Your task to perform on an android device: turn on airplane mode Image 0: 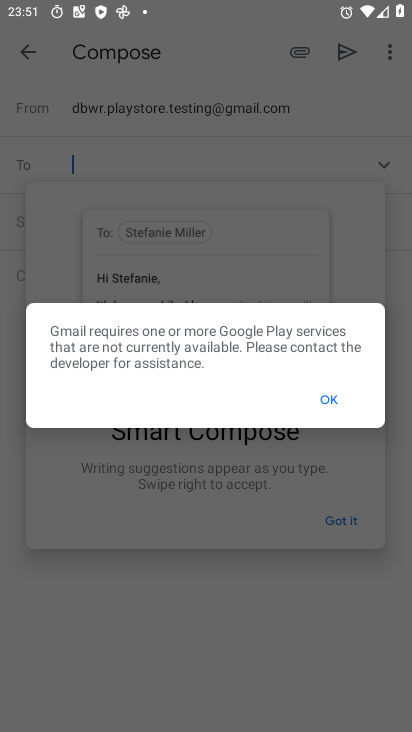
Step 0: press home button
Your task to perform on an android device: turn on airplane mode Image 1: 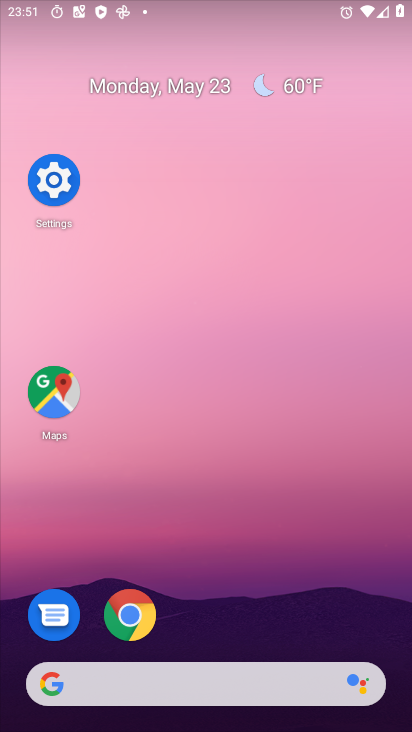
Step 1: drag from (246, 522) to (301, 30)
Your task to perform on an android device: turn on airplane mode Image 2: 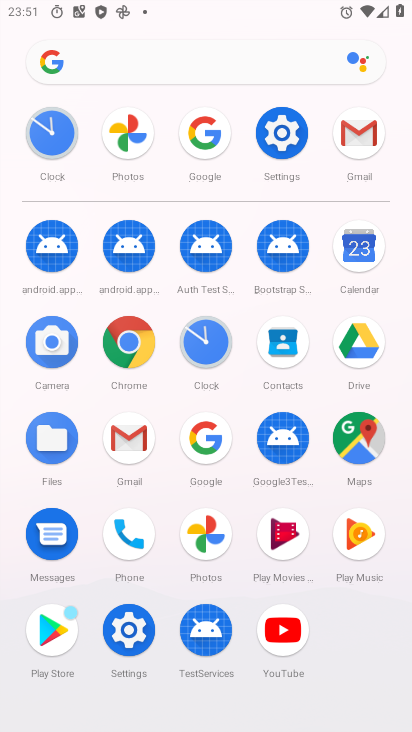
Step 2: click (284, 120)
Your task to perform on an android device: turn on airplane mode Image 3: 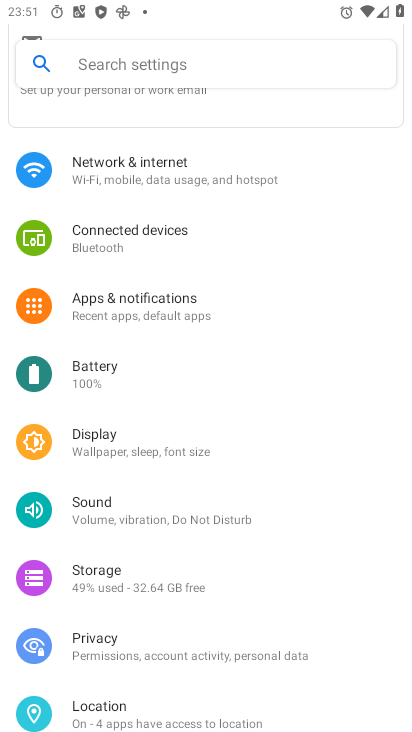
Step 3: click (164, 172)
Your task to perform on an android device: turn on airplane mode Image 4: 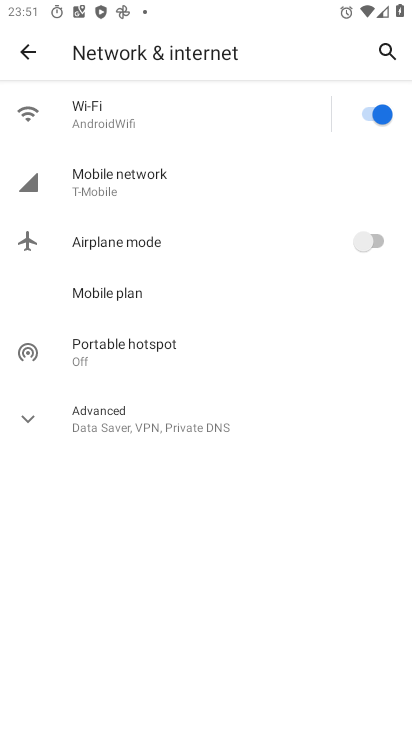
Step 4: click (362, 236)
Your task to perform on an android device: turn on airplane mode Image 5: 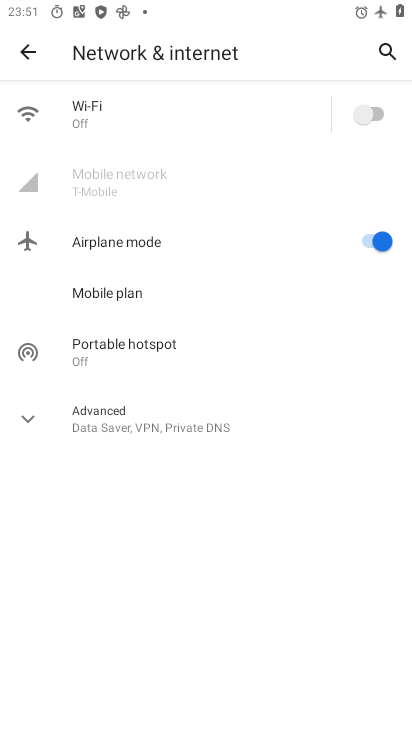
Step 5: task complete